Your task to perform on an android device: What time is it in Paris? Image 0: 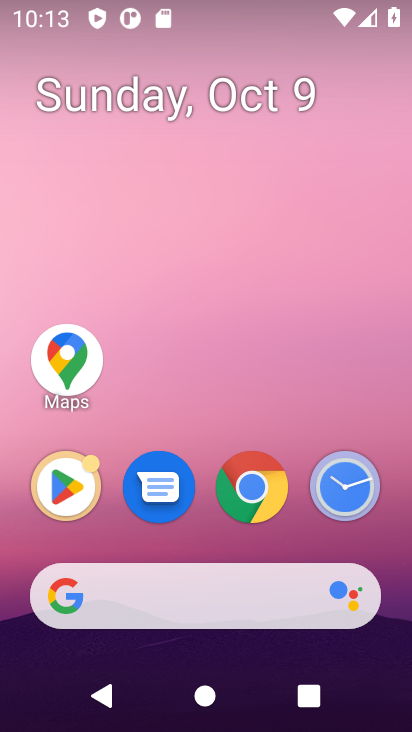
Step 0: drag from (211, 563) to (177, 77)
Your task to perform on an android device: What time is it in Paris? Image 1: 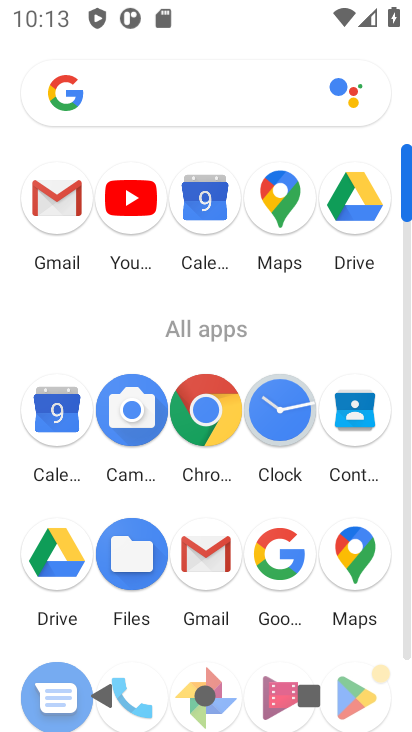
Step 1: click (224, 547)
Your task to perform on an android device: What time is it in Paris? Image 2: 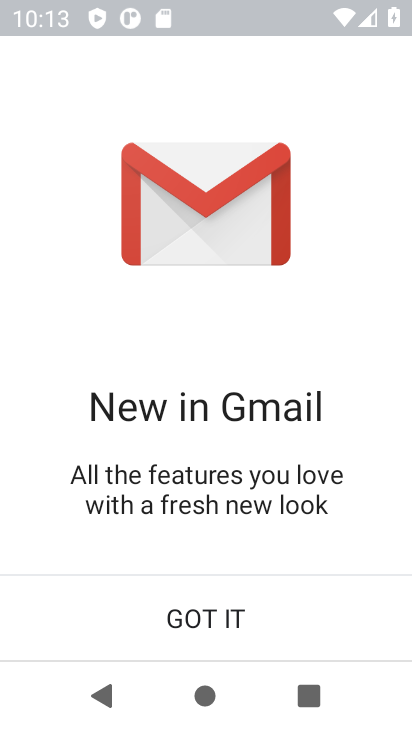
Step 2: press home button
Your task to perform on an android device: What time is it in Paris? Image 3: 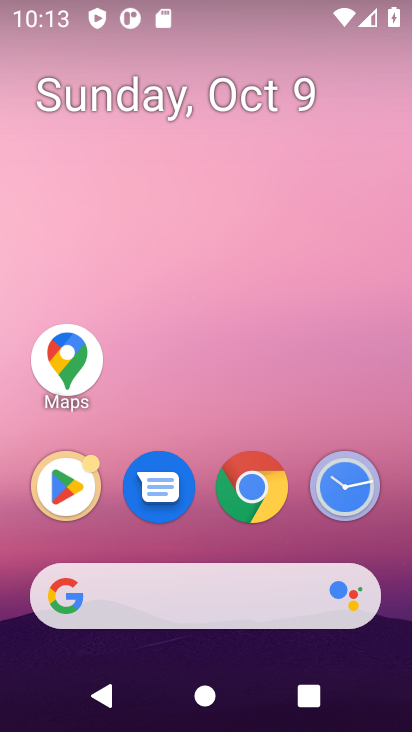
Step 3: click (250, 489)
Your task to perform on an android device: What time is it in Paris? Image 4: 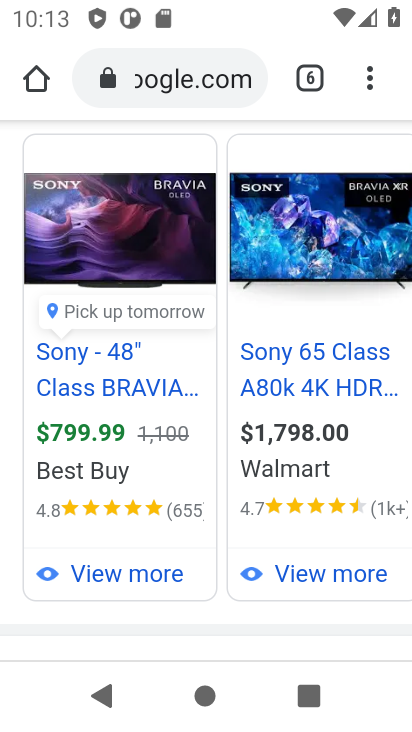
Step 4: drag from (373, 88) to (79, 152)
Your task to perform on an android device: What time is it in Paris? Image 5: 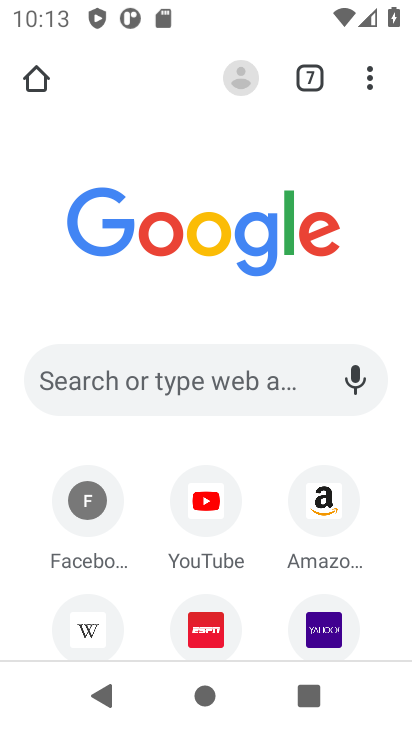
Step 5: click (208, 374)
Your task to perform on an android device: What time is it in Paris? Image 6: 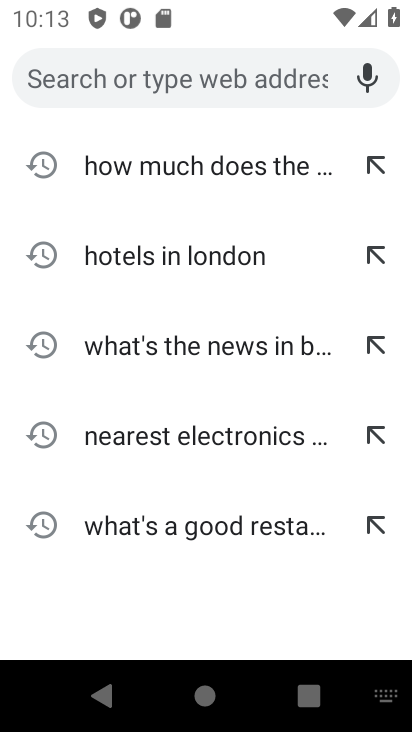
Step 6: type "What time is it in Paris?"
Your task to perform on an android device: What time is it in Paris? Image 7: 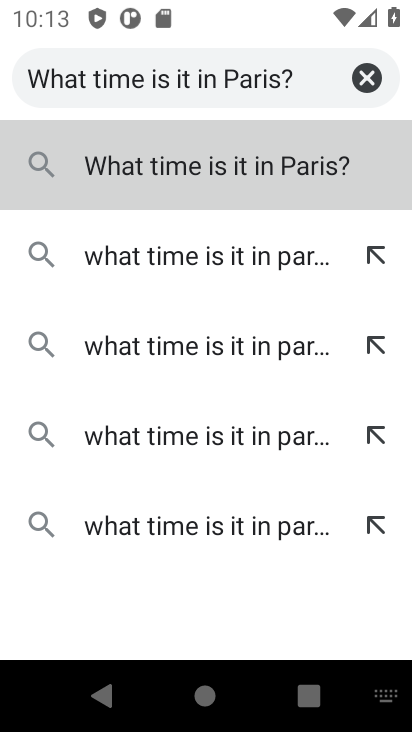
Step 7: click (253, 172)
Your task to perform on an android device: What time is it in Paris? Image 8: 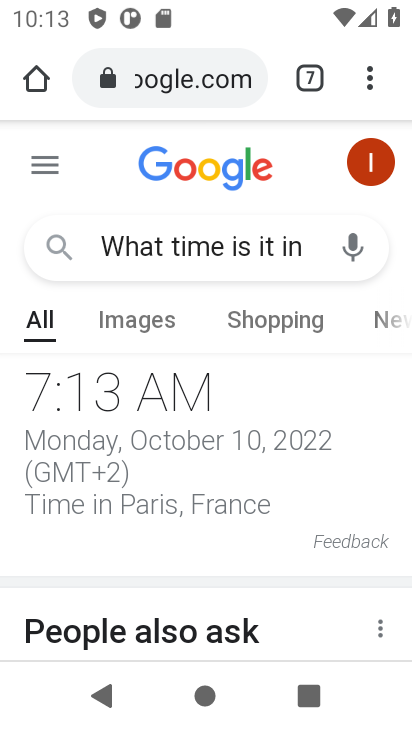
Step 8: task complete